Your task to perform on an android device: Play the last video I watched on Youtube Image 0: 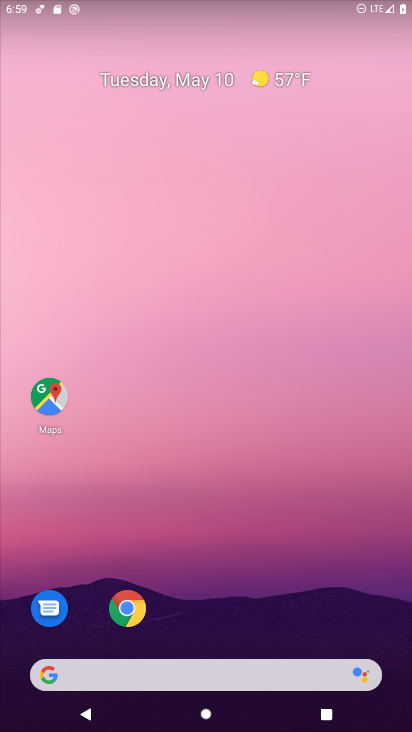
Step 0: drag from (369, 598) to (194, 25)
Your task to perform on an android device: Play the last video I watched on Youtube Image 1: 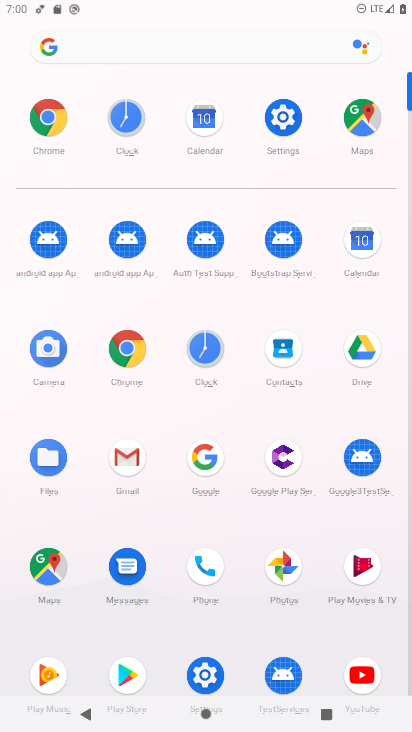
Step 1: click (371, 669)
Your task to perform on an android device: Play the last video I watched on Youtube Image 2: 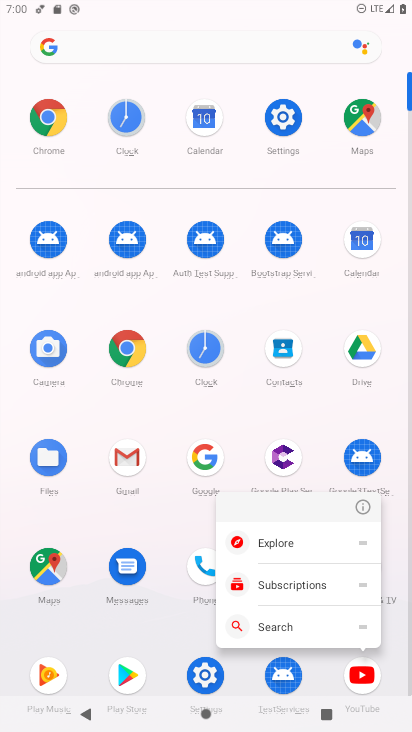
Step 2: click (371, 669)
Your task to perform on an android device: Play the last video I watched on Youtube Image 3: 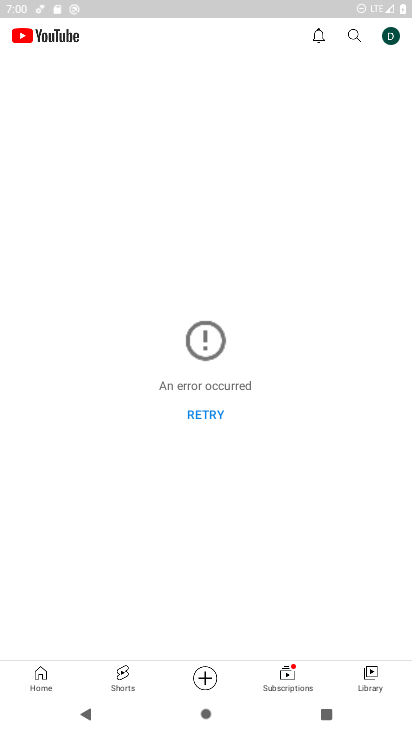
Step 3: click (195, 412)
Your task to perform on an android device: Play the last video I watched on Youtube Image 4: 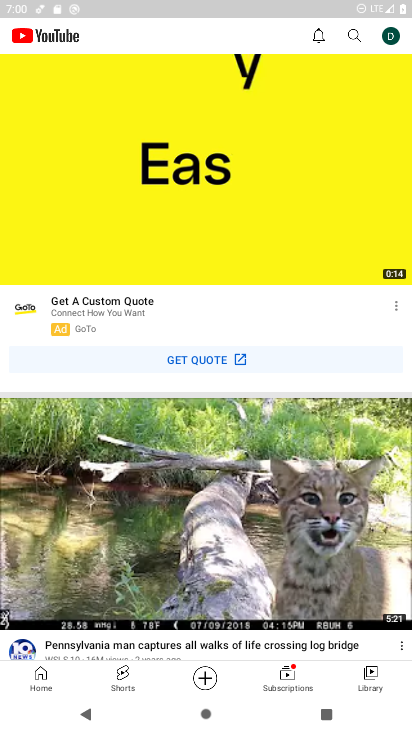
Step 4: click (372, 682)
Your task to perform on an android device: Play the last video I watched on Youtube Image 5: 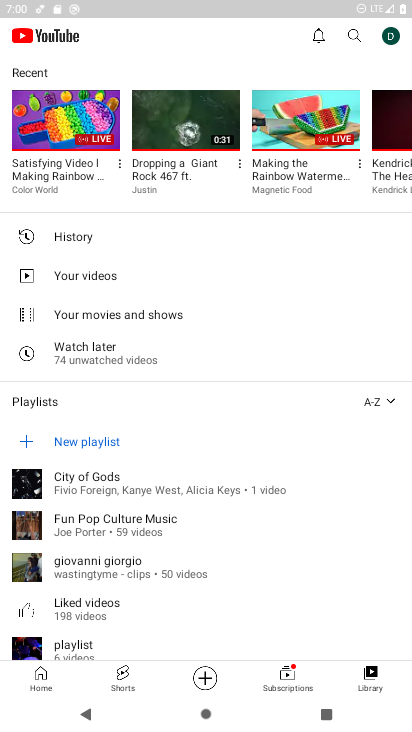
Step 5: click (192, 121)
Your task to perform on an android device: Play the last video I watched on Youtube Image 6: 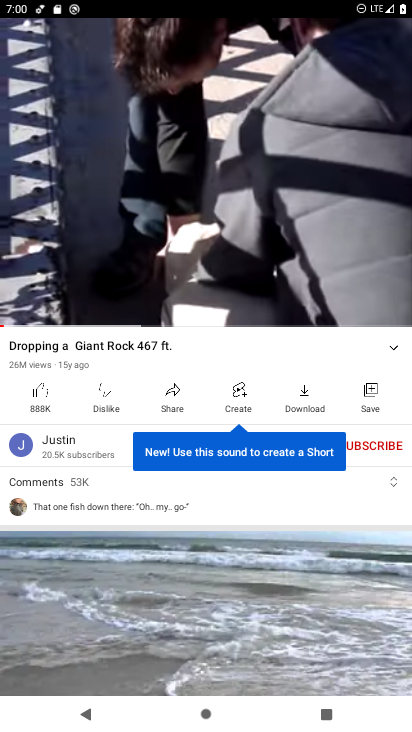
Step 6: click (192, 121)
Your task to perform on an android device: Play the last video I watched on Youtube Image 7: 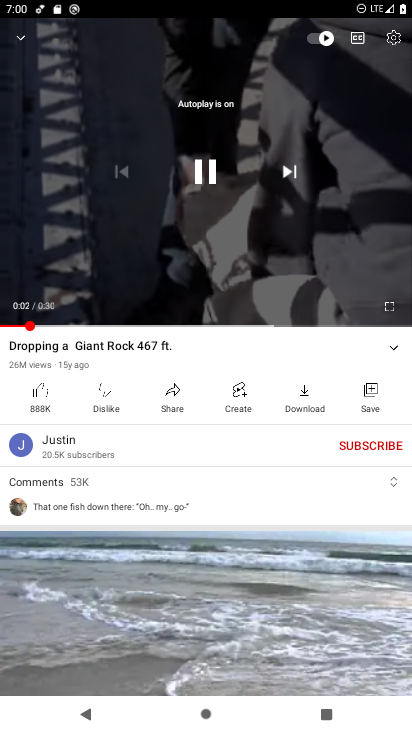
Step 7: click (204, 164)
Your task to perform on an android device: Play the last video I watched on Youtube Image 8: 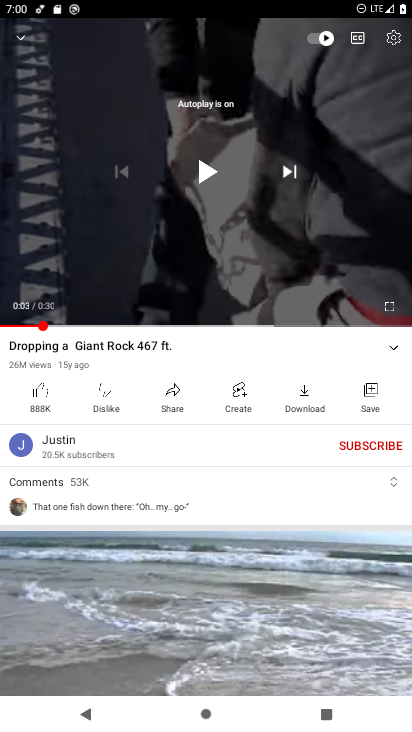
Step 8: task complete